Your task to perform on an android device: find photos in the google photos app Image 0: 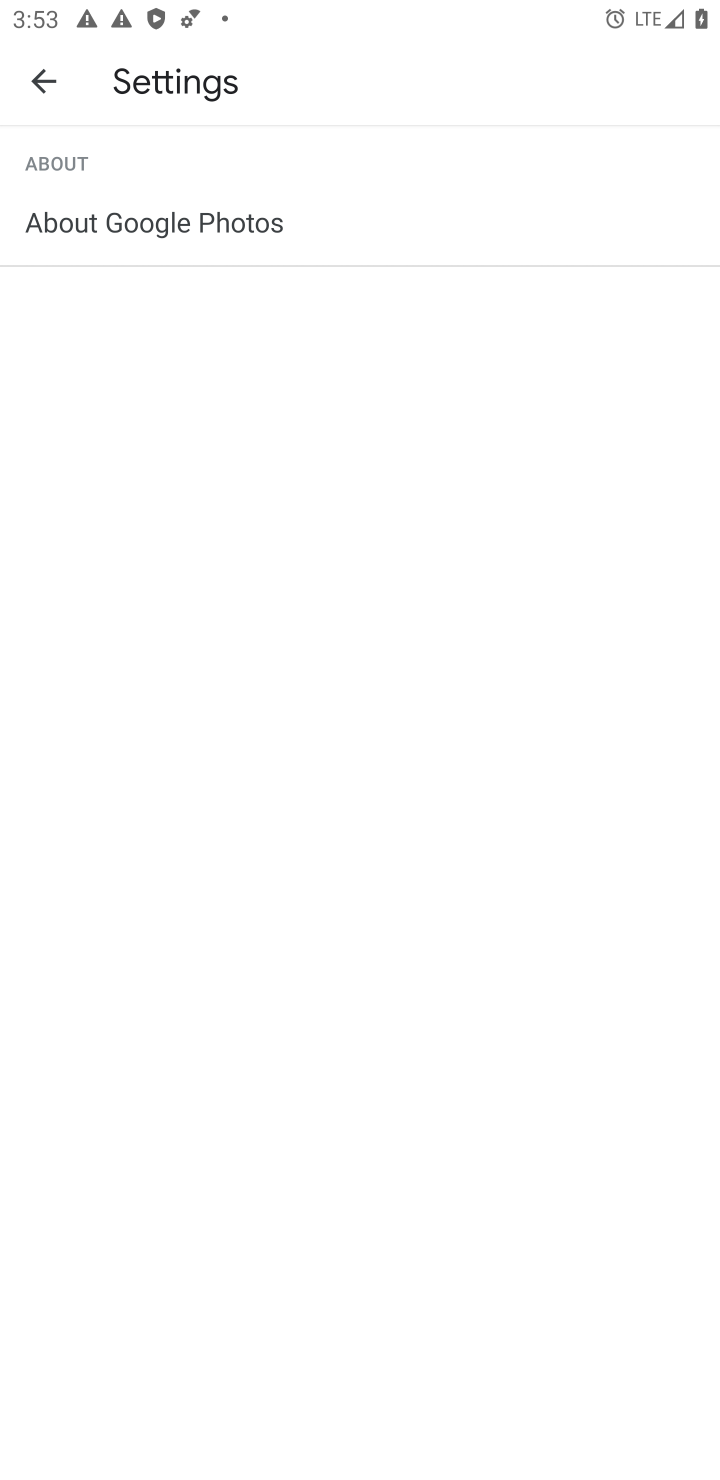
Step 0: press home button
Your task to perform on an android device: find photos in the google photos app Image 1: 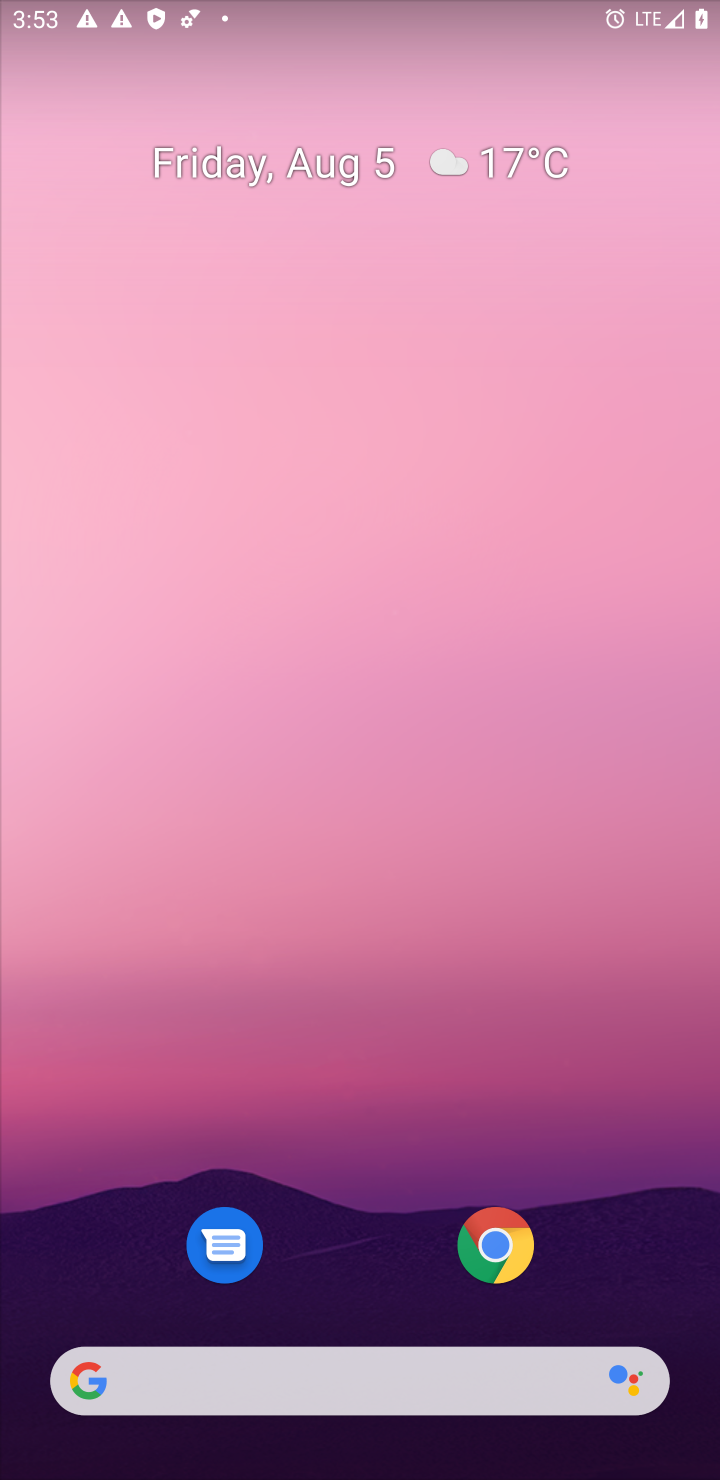
Step 1: drag from (78, 1401) to (708, 331)
Your task to perform on an android device: find photos in the google photos app Image 2: 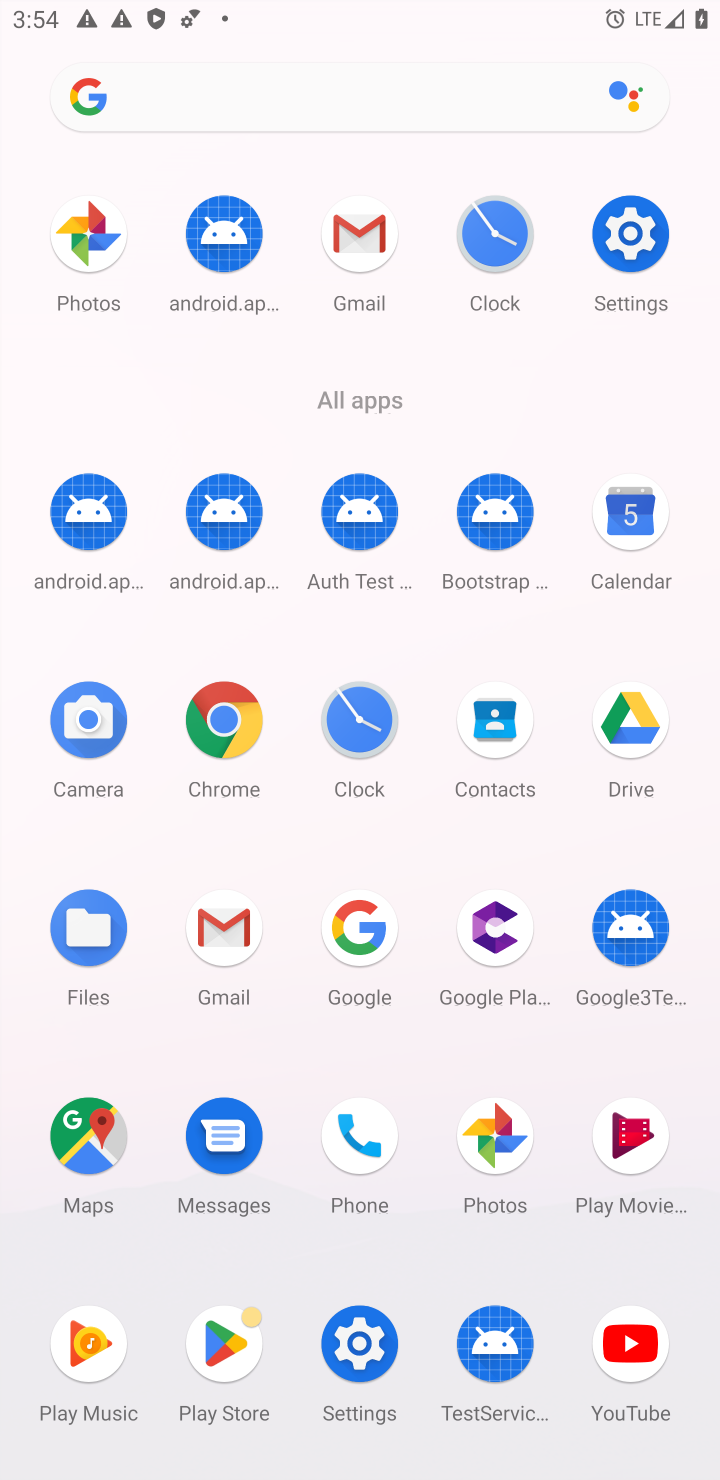
Step 2: click (504, 1130)
Your task to perform on an android device: find photos in the google photos app Image 3: 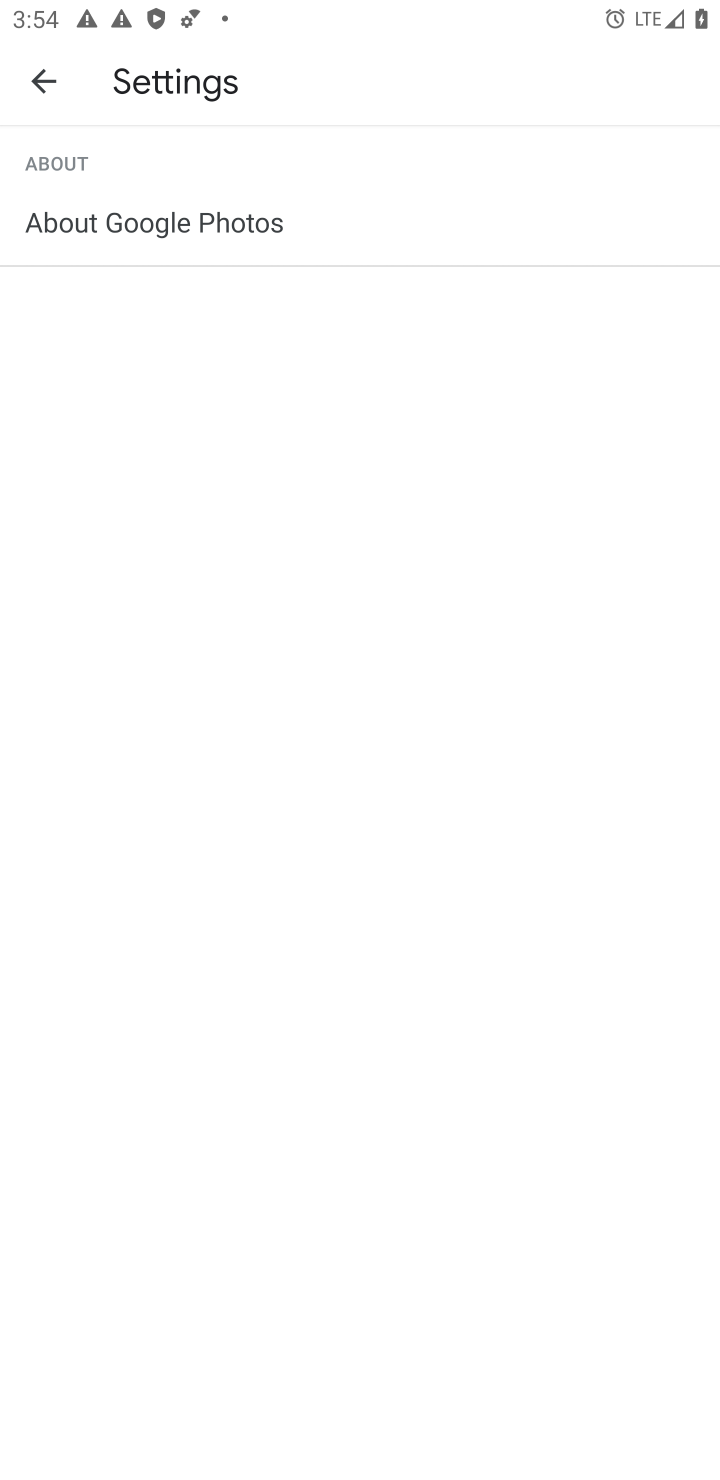
Step 3: click (40, 89)
Your task to perform on an android device: find photos in the google photos app Image 4: 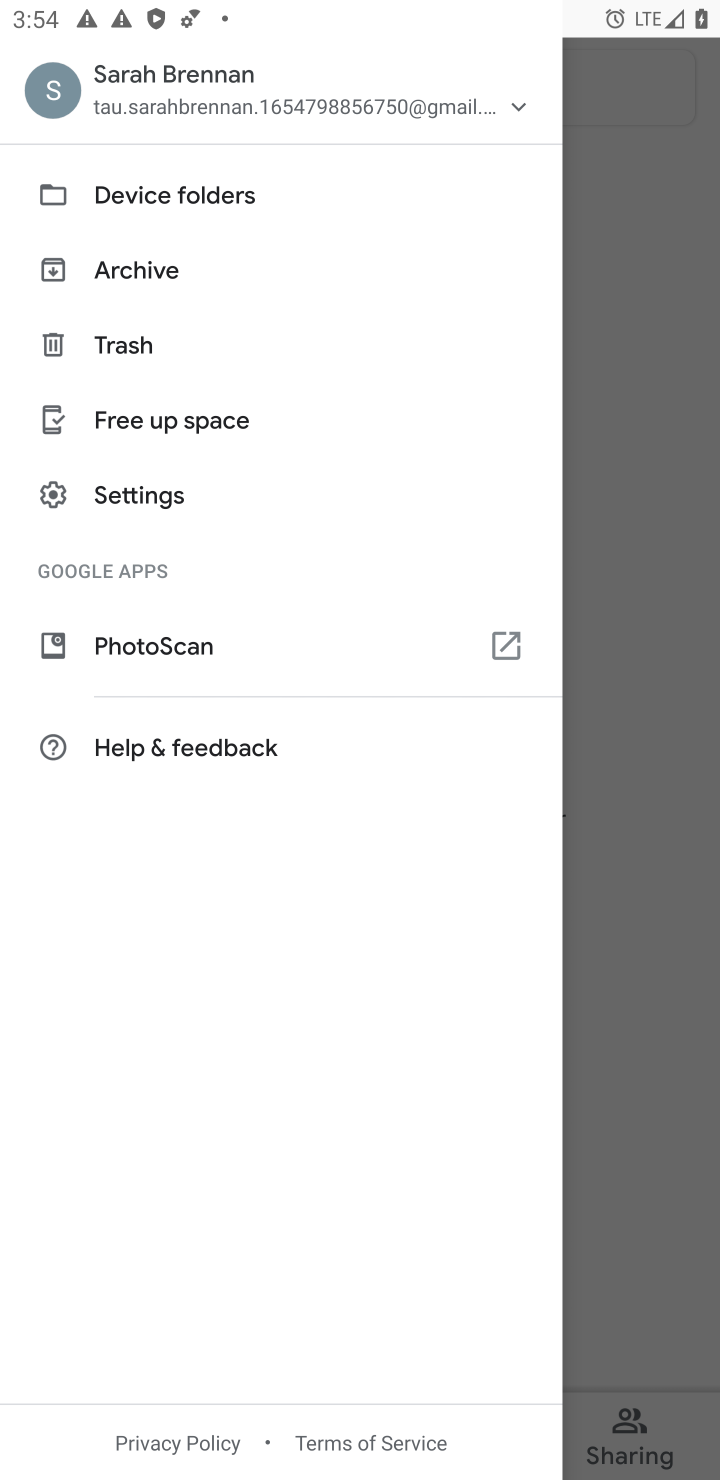
Step 4: click (661, 470)
Your task to perform on an android device: find photos in the google photos app Image 5: 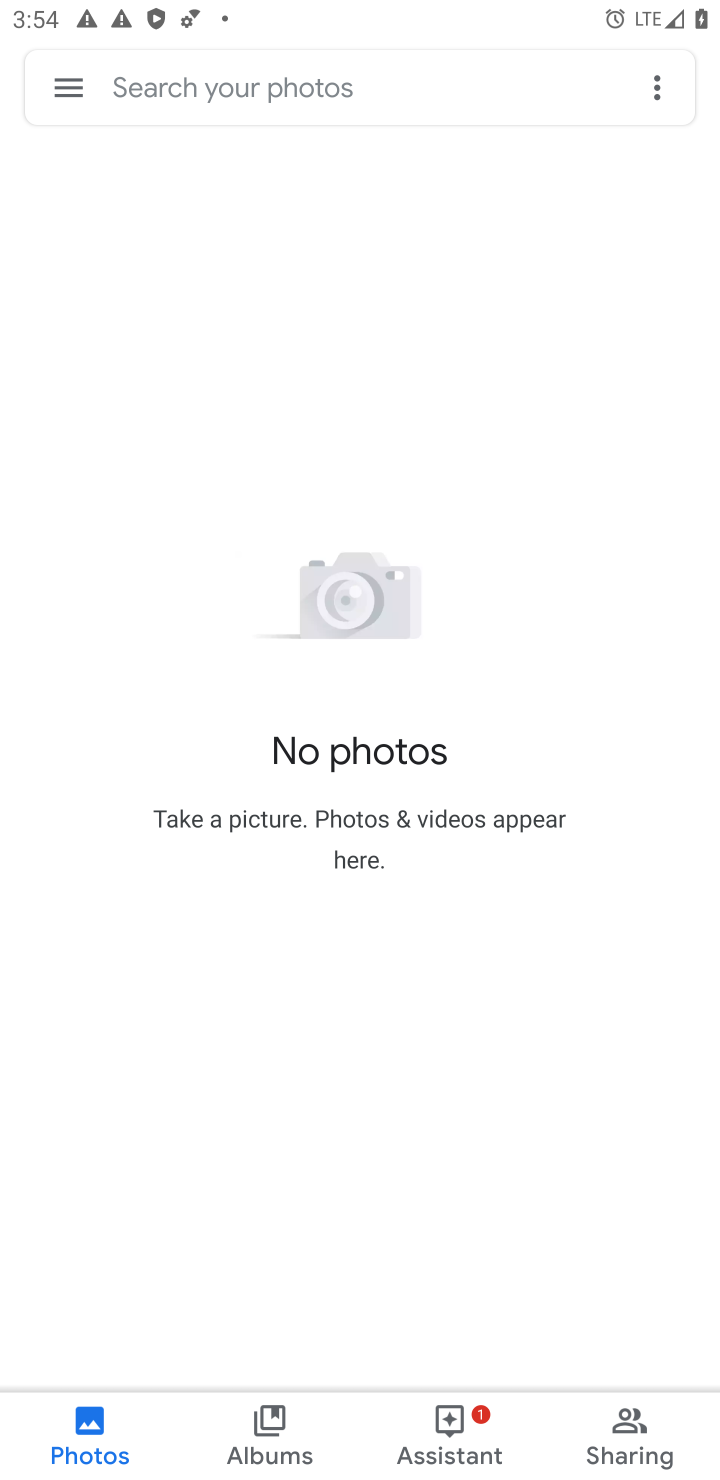
Step 5: task complete